Your task to perform on an android device: open device folders in google photos Image 0: 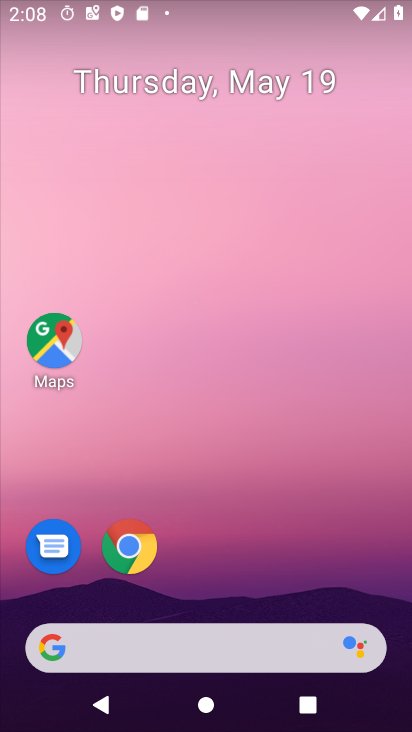
Step 0: drag from (261, 584) to (283, 58)
Your task to perform on an android device: open device folders in google photos Image 1: 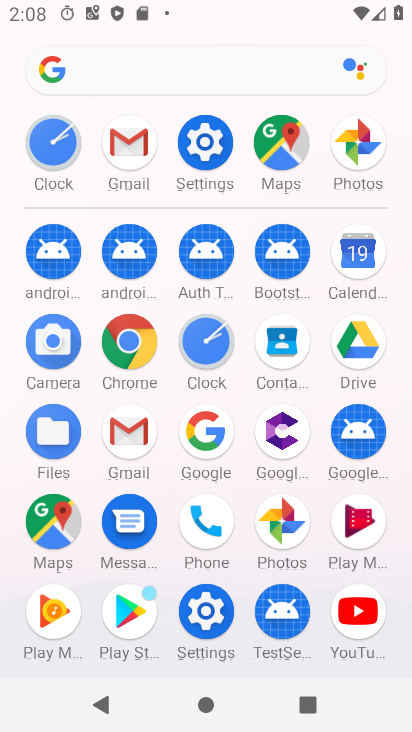
Step 1: click (352, 163)
Your task to perform on an android device: open device folders in google photos Image 2: 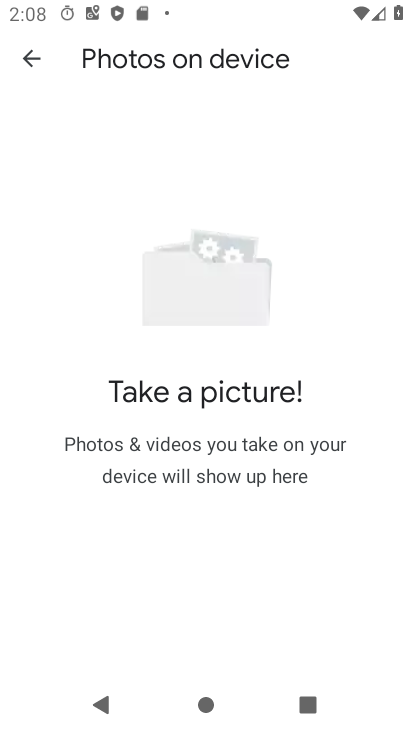
Step 2: task complete